Your task to perform on an android device: When is my next meeting? Image 0: 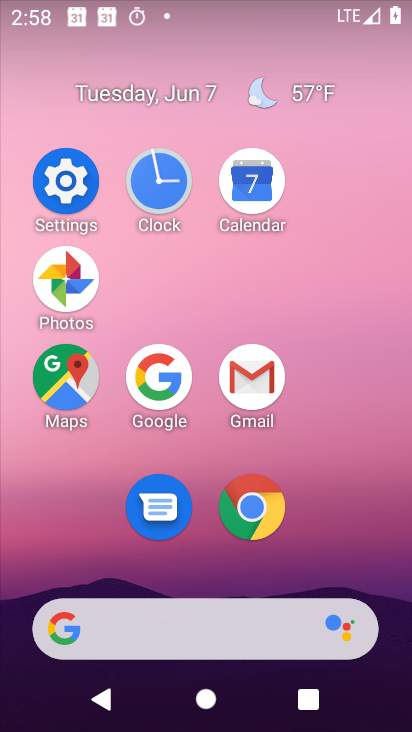
Step 0: click (255, 190)
Your task to perform on an android device: When is my next meeting? Image 1: 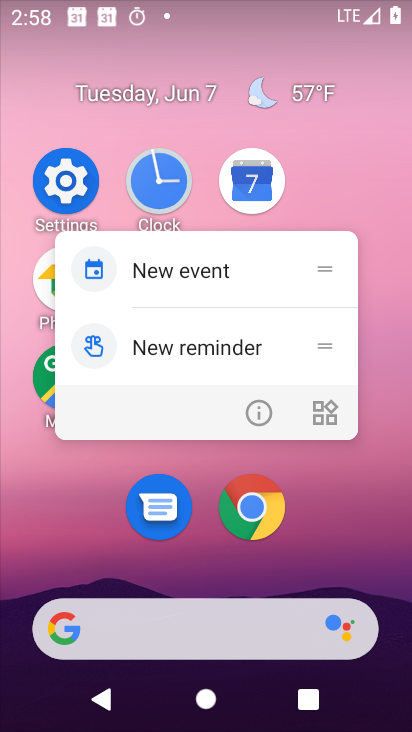
Step 1: click (259, 174)
Your task to perform on an android device: When is my next meeting? Image 2: 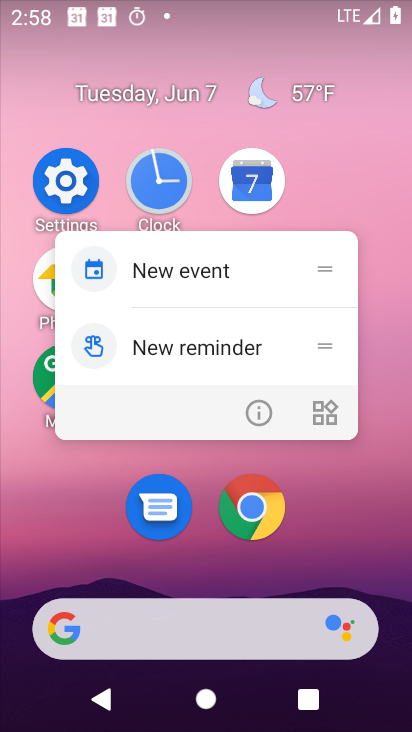
Step 2: click (266, 175)
Your task to perform on an android device: When is my next meeting? Image 3: 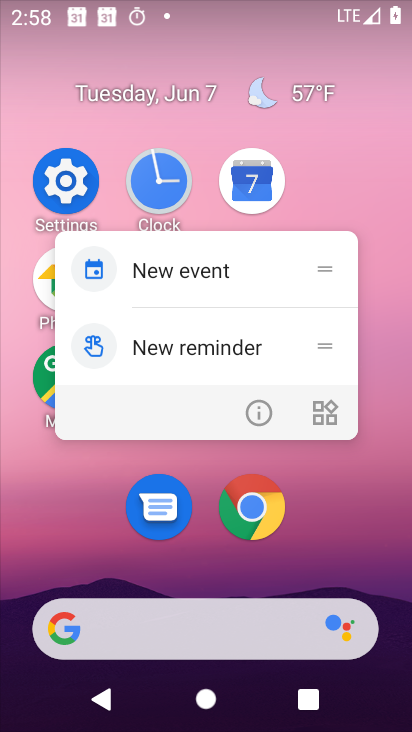
Step 3: click (238, 176)
Your task to perform on an android device: When is my next meeting? Image 4: 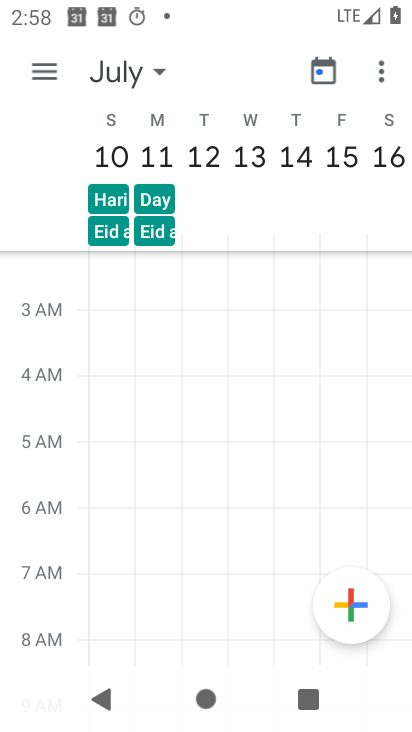
Step 4: click (159, 68)
Your task to perform on an android device: When is my next meeting? Image 5: 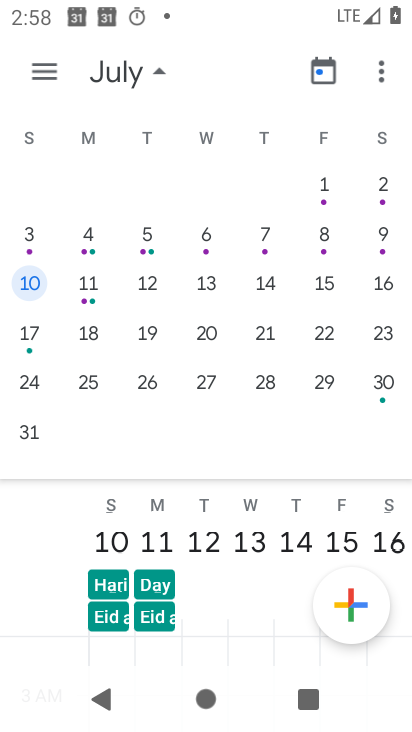
Step 5: drag from (87, 320) to (391, 310)
Your task to perform on an android device: When is my next meeting? Image 6: 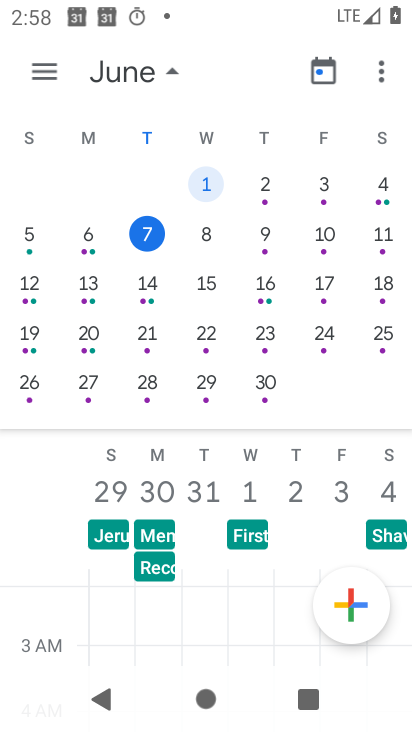
Step 6: click (110, 230)
Your task to perform on an android device: When is my next meeting? Image 7: 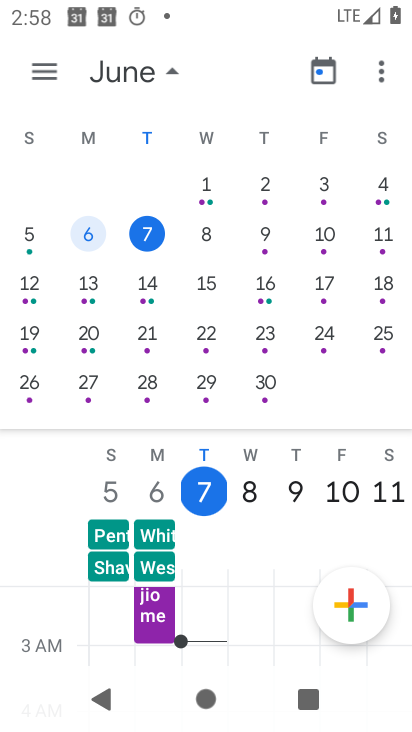
Step 7: click (205, 228)
Your task to perform on an android device: When is my next meeting? Image 8: 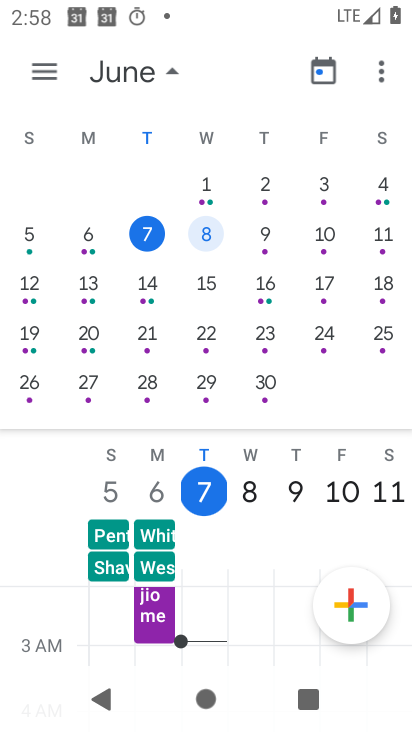
Step 8: click (222, 227)
Your task to perform on an android device: When is my next meeting? Image 9: 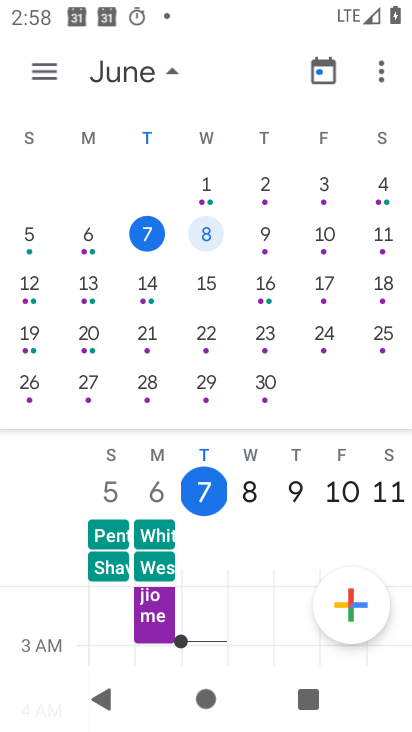
Step 9: click (252, 488)
Your task to perform on an android device: When is my next meeting? Image 10: 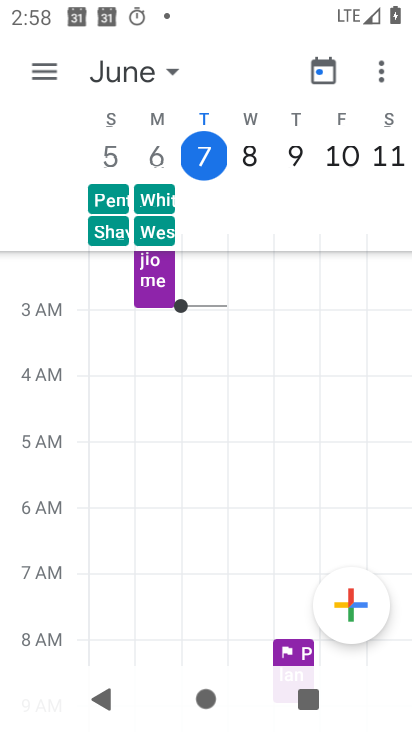
Step 10: task complete